Your task to perform on an android device: turn off smart reply in the gmail app Image 0: 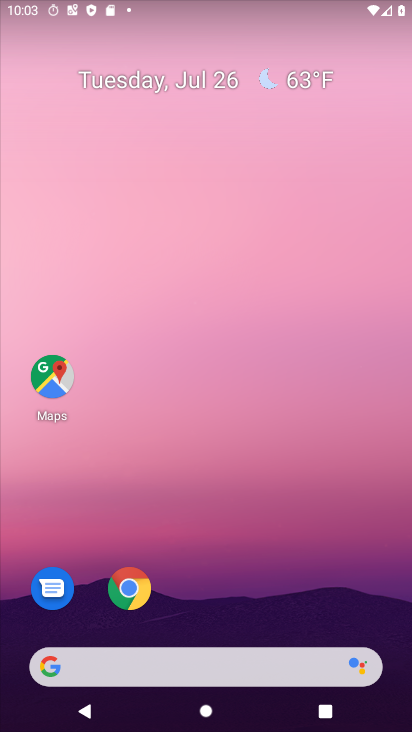
Step 0: drag from (249, 623) to (225, 78)
Your task to perform on an android device: turn off smart reply in the gmail app Image 1: 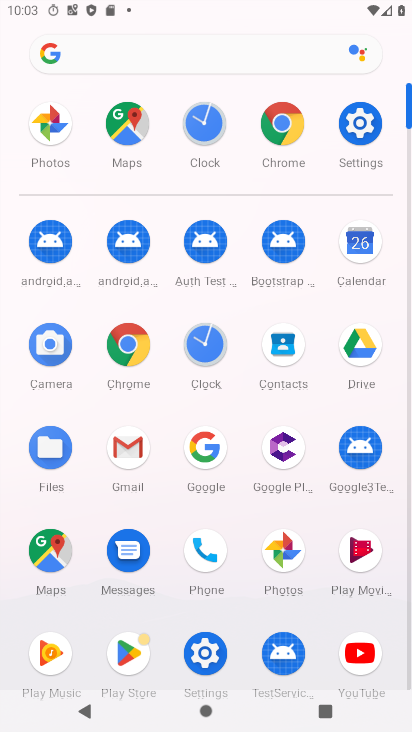
Step 1: click (119, 456)
Your task to perform on an android device: turn off smart reply in the gmail app Image 2: 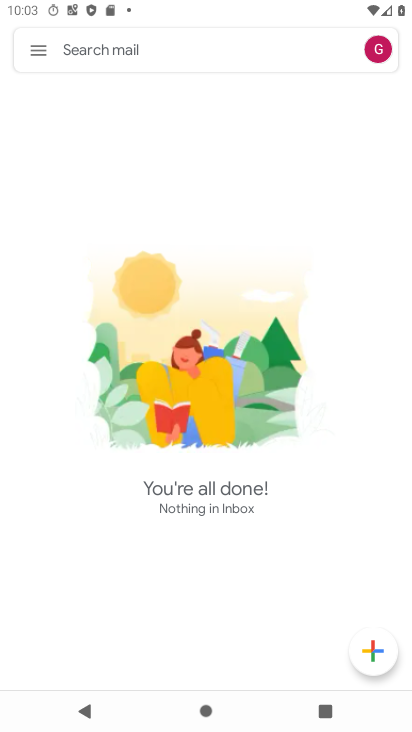
Step 2: click (31, 38)
Your task to perform on an android device: turn off smart reply in the gmail app Image 3: 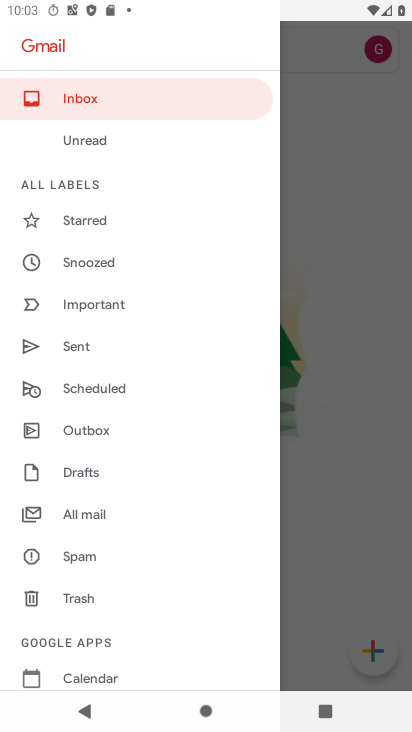
Step 3: drag from (87, 644) to (168, 167)
Your task to perform on an android device: turn off smart reply in the gmail app Image 4: 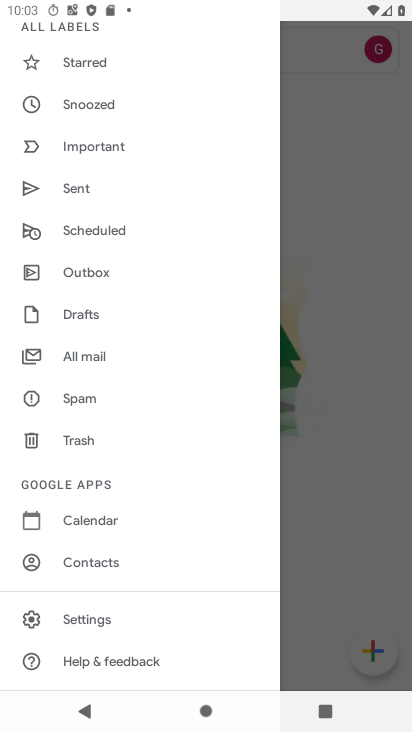
Step 4: click (166, 608)
Your task to perform on an android device: turn off smart reply in the gmail app Image 5: 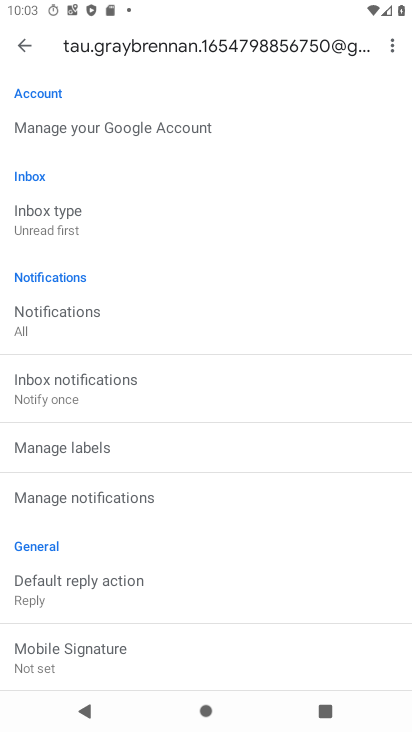
Step 5: drag from (166, 608) to (242, 93)
Your task to perform on an android device: turn off smart reply in the gmail app Image 6: 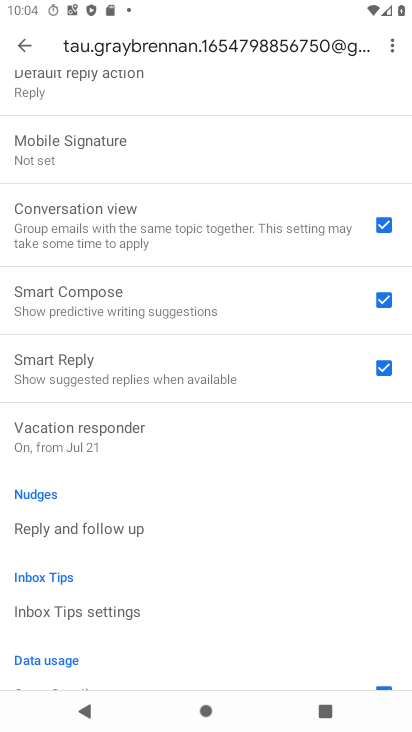
Step 6: click (390, 368)
Your task to perform on an android device: turn off smart reply in the gmail app Image 7: 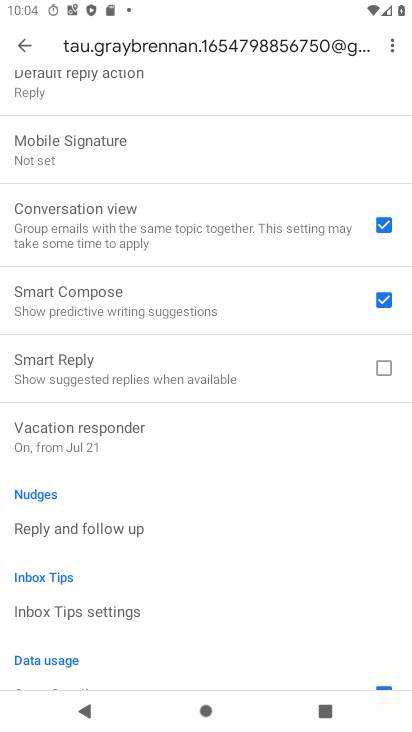
Step 7: task complete